Your task to perform on an android device: Go to Maps Image 0: 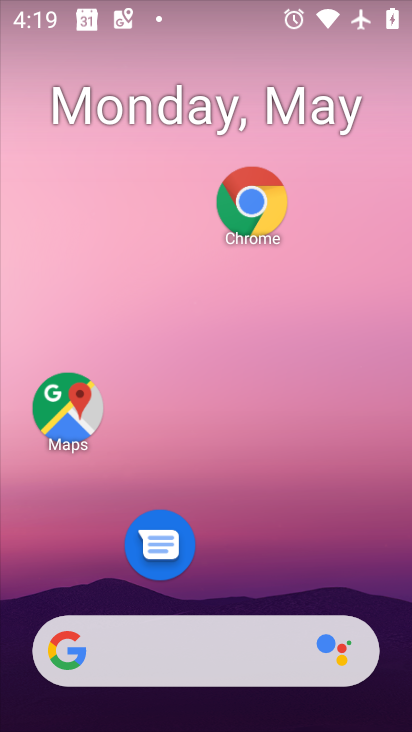
Step 0: click (83, 419)
Your task to perform on an android device: Go to Maps Image 1: 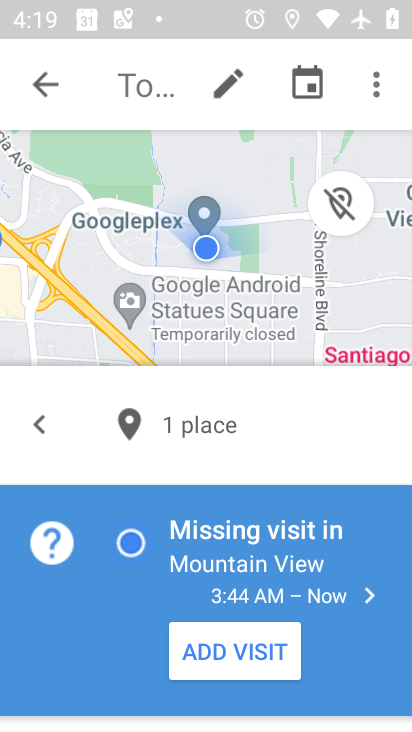
Step 1: task complete